Your task to perform on an android device: turn on the 12-hour format for clock Image 0: 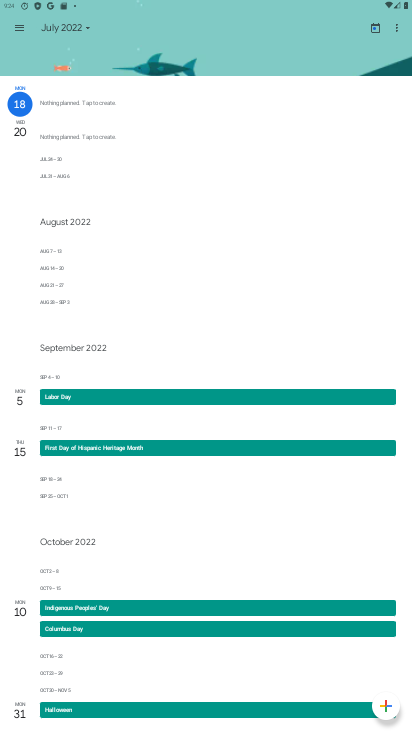
Step 0: press home button
Your task to perform on an android device: turn on the 12-hour format for clock Image 1: 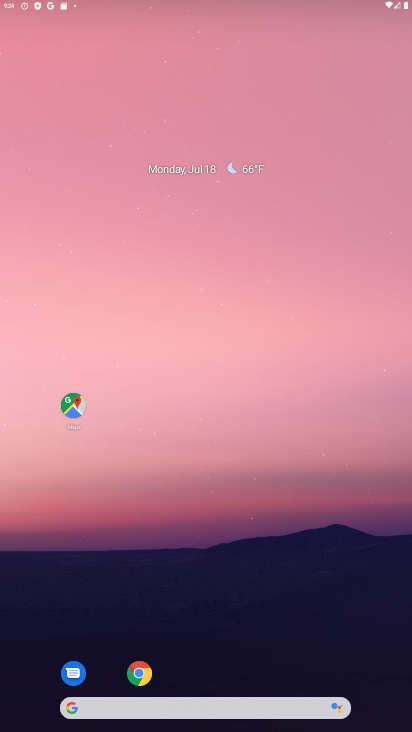
Step 1: drag from (171, 666) to (224, 121)
Your task to perform on an android device: turn on the 12-hour format for clock Image 2: 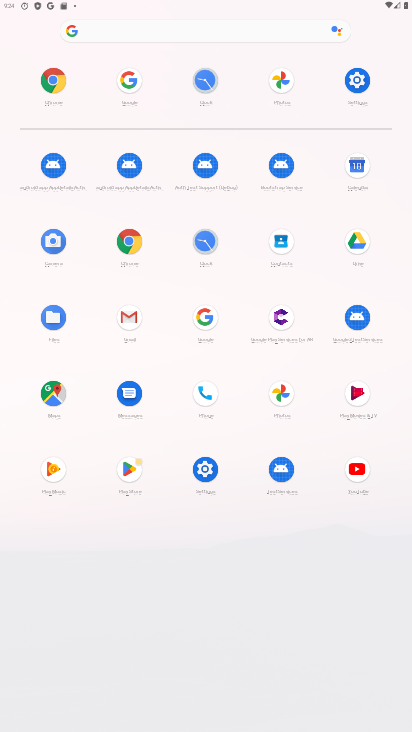
Step 2: click (206, 238)
Your task to perform on an android device: turn on the 12-hour format for clock Image 3: 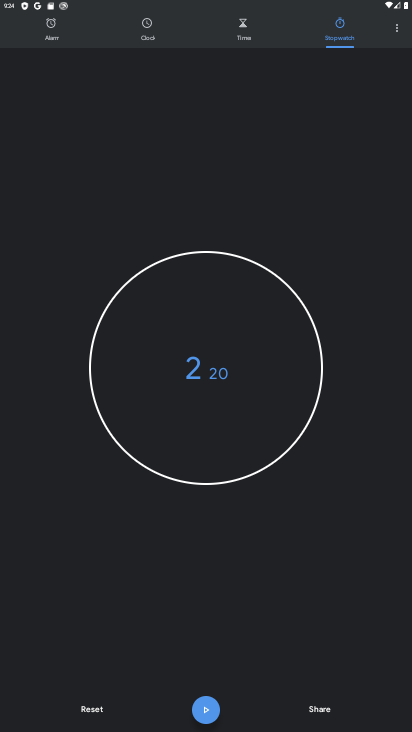
Step 3: click (393, 31)
Your task to perform on an android device: turn on the 12-hour format for clock Image 4: 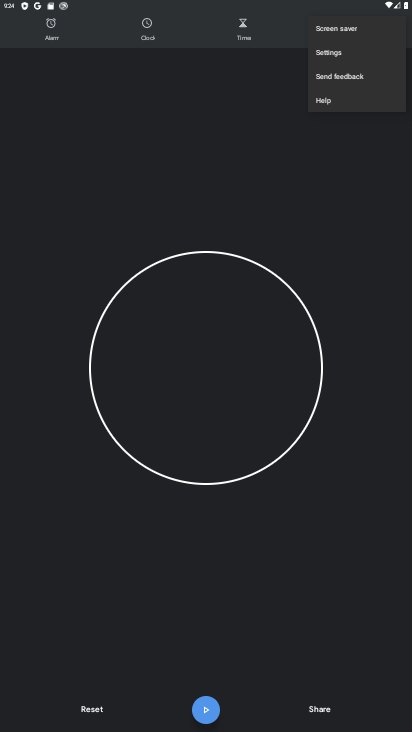
Step 4: click (343, 54)
Your task to perform on an android device: turn on the 12-hour format for clock Image 5: 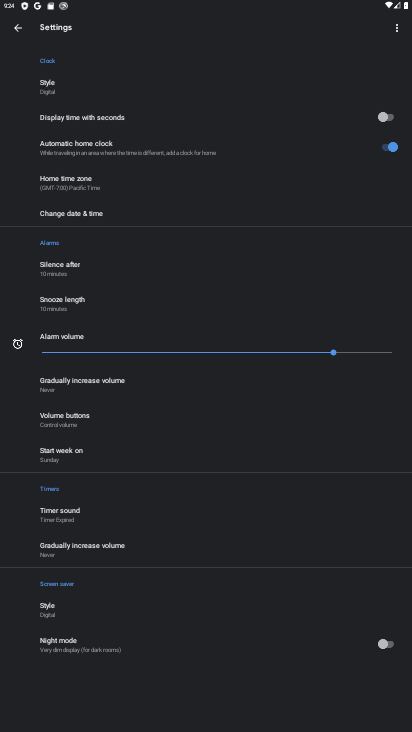
Step 5: click (143, 214)
Your task to perform on an android device: turn on the 12-hour format for clock Image 6: 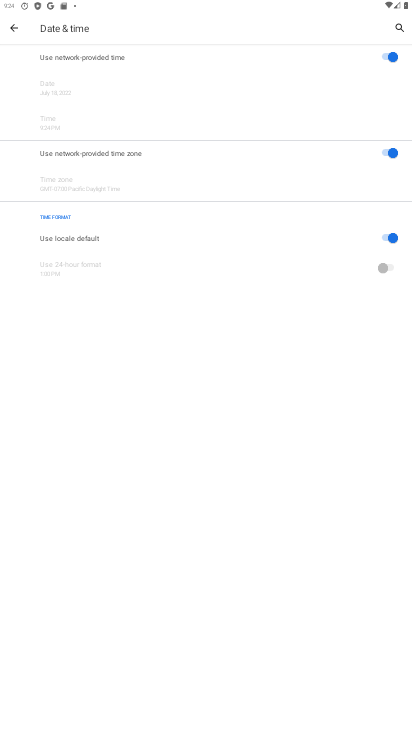
Step 6: task complete